Your task to perform on an android device: Open location settings Image 0: 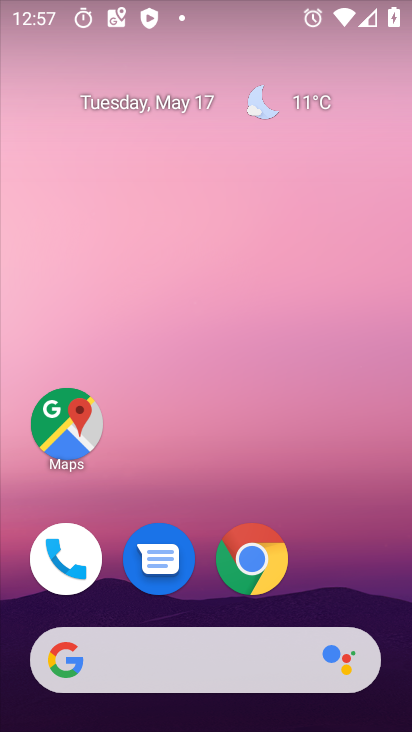
Step 0: drag from (320, 541) to (360, 121)
Your task to perform on an android device: Open location settings Image 1: 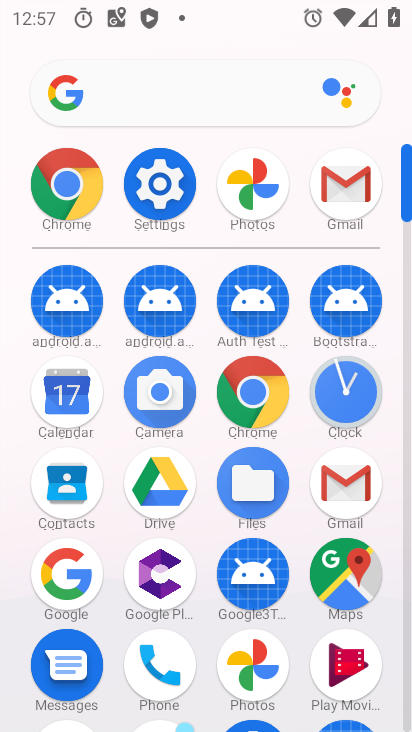
Step 1: click (157, 188)
Your task to perform on an android device: Open location settings Image 2: 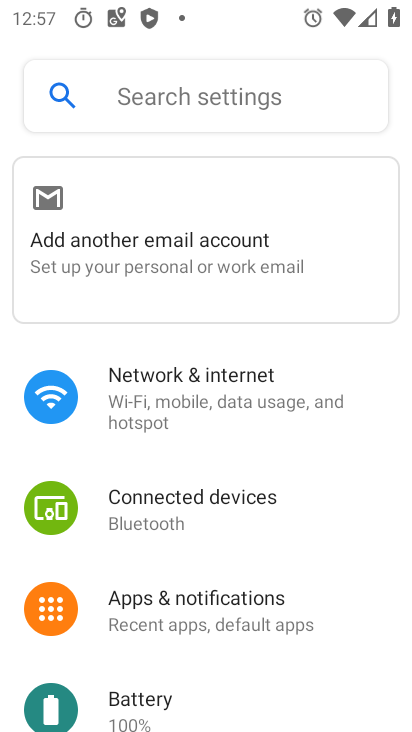
Step 2: drag from (273, 604) to (306, 150)
Your task to perform on an android device: Open location settings Image 3: 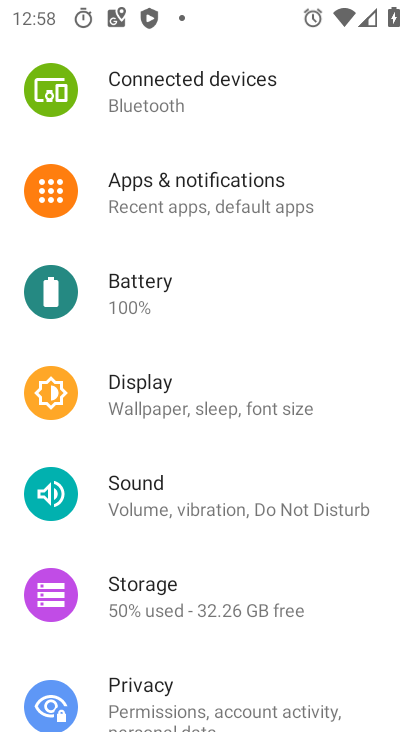
Step 3: drag from (246, 216) to (331, 104)
Your task to perform on an android device: Open location settings Image 4: 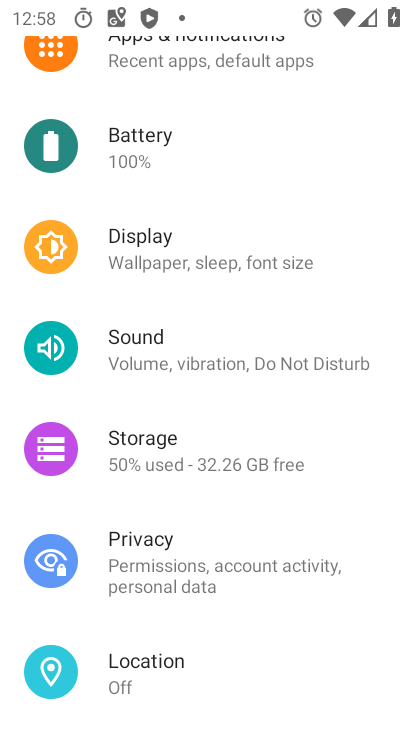
Step 4: click (168, 679)
Your task to perform on an android device: Open location settings Image 5: 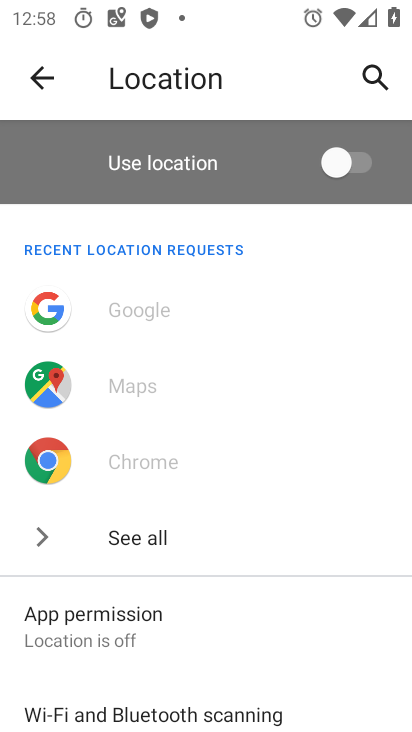
Step 5: task complete